Your task to perform on an android device: toggle notification dots Image 0: 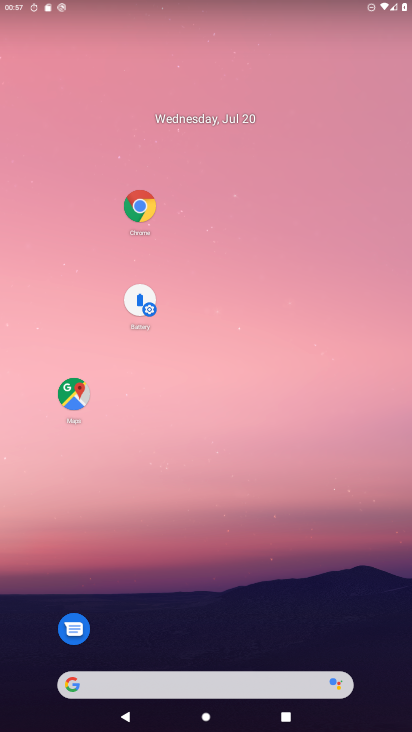
Step 0: drag from (196, 600) to (198, 130)
Your task to perform on an android device: toggle notification dots Image 1: 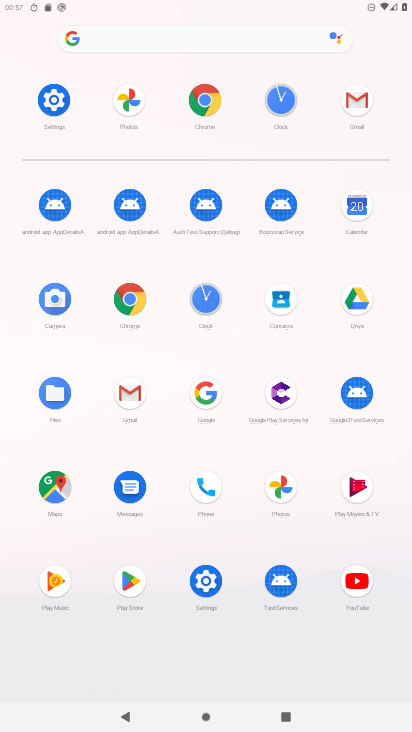
Step 1: click (198, 591)
Your task to perform on an android device: toggle notification dots Image 2: 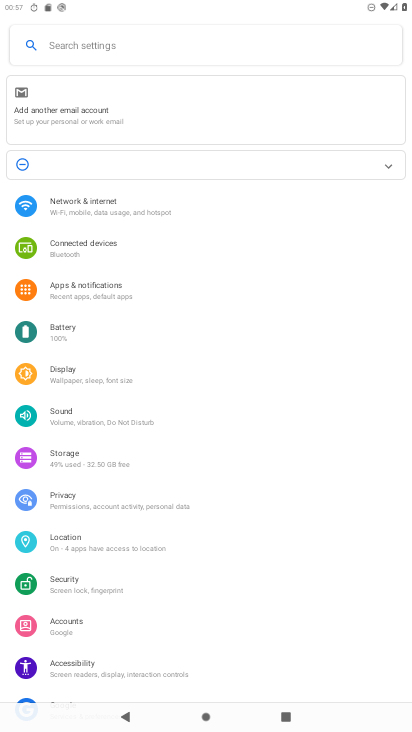
Step 2: click (97, 292)
Your task to perform on an android device: toggle notification dots Image 3: 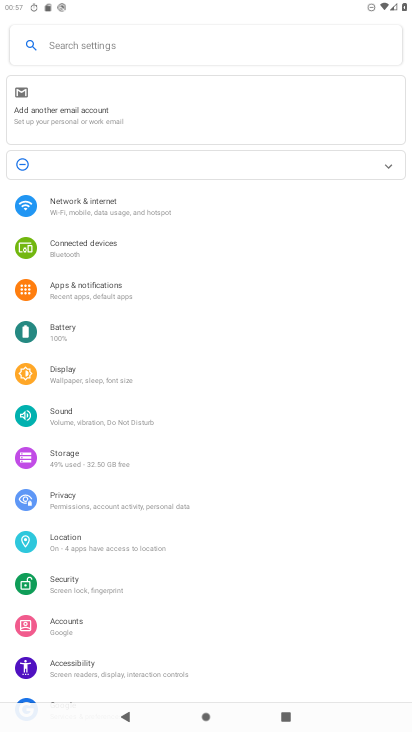
Step 3: click (100, 291)
Your task to perform on an android device: toggle notification dots Image 4: 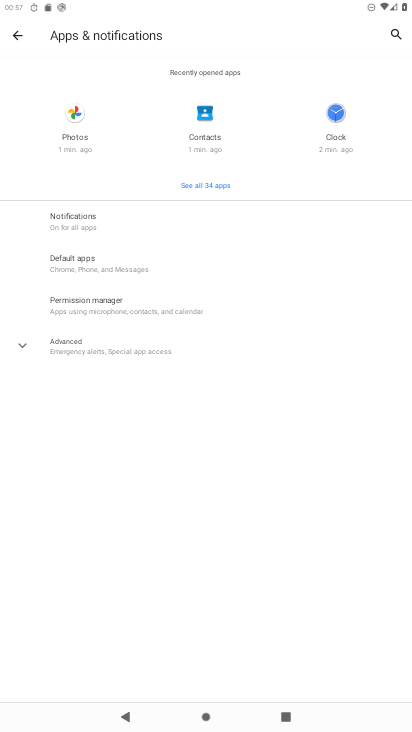
Step 4: click (90, 220)
Your task to perform on an android device: toggle notification dots Image 5: 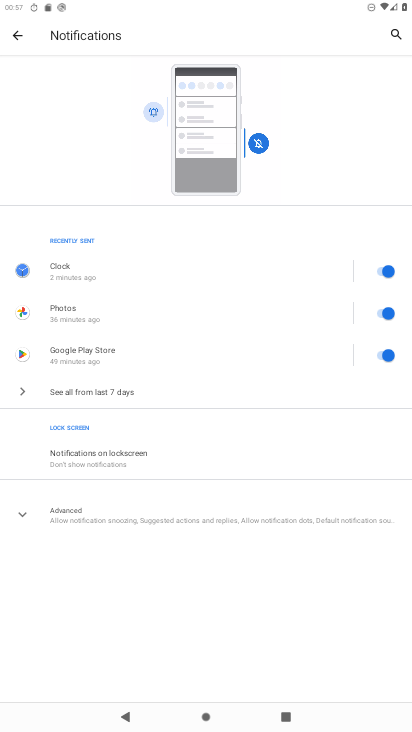
Step 5: click (58, 508)
Your task to perform on an android device: toggle notification dots Image 6: 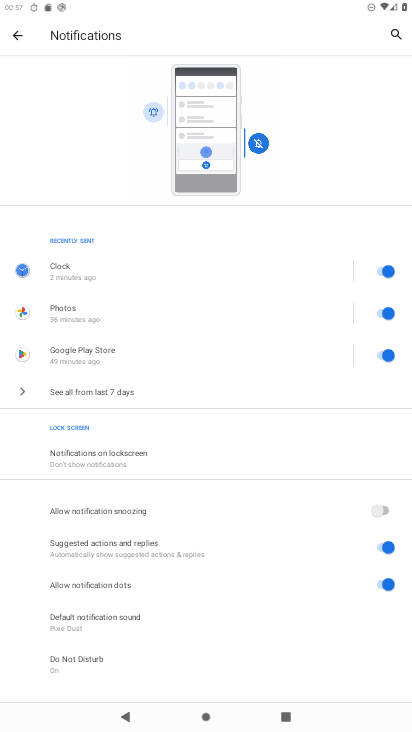
Step 6: click (383, 585)
Your task to perform on an android device: toggle notification dots Image 7: 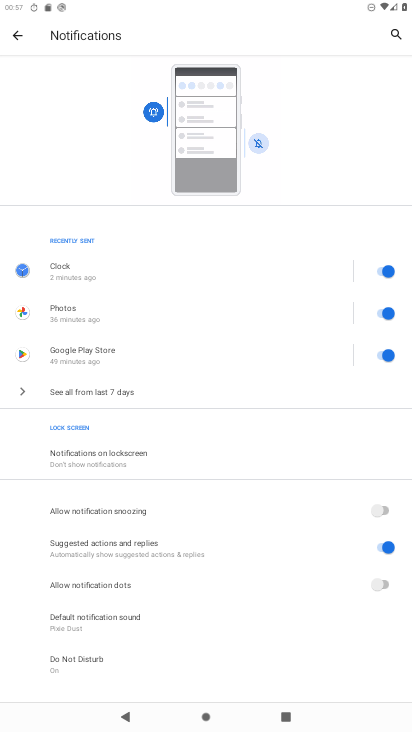
Step 7: task complete